Your task to perform on an android device: empty trash in the gmail app Image 0: 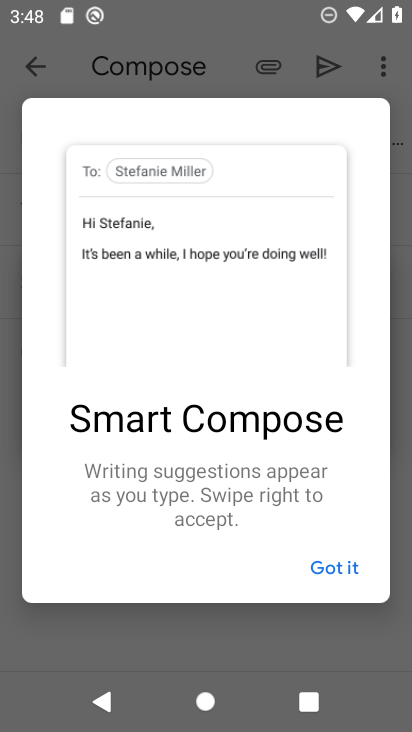
Step 0: press home button
Your task to perform on an android device: empty trash in the gmail app Image 1: 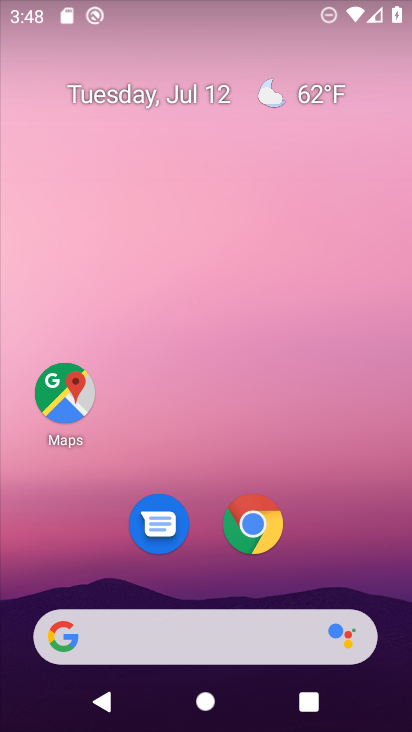
Step 1: drag from (332, 550) to (299, 119)
Your task to perform on an android device: empty trash in the gmail app Image 2: 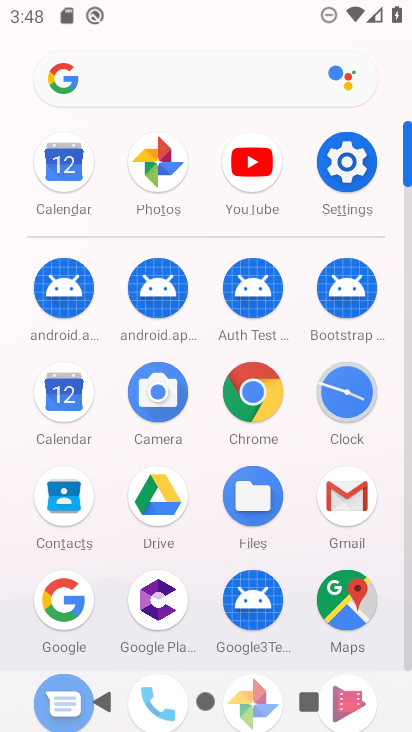
Step 2: click (159, 156)
Your task to perform on an android device: empty trash in the gmail app Image 3: 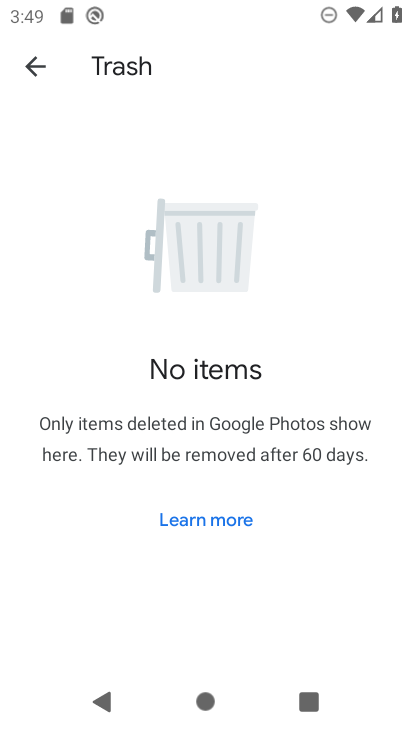
Step 3: task complete